Your task to perform on an android device: move an email to a new category in the gmail app Image 0: 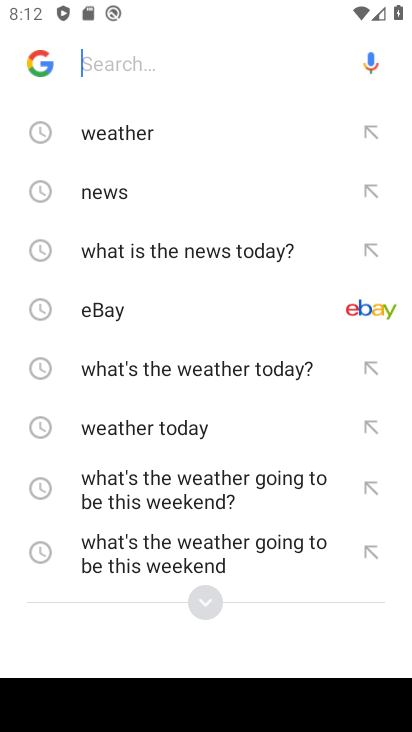
Step 0: press home button
Your task to perform on an android device: move an email to a new category in the gmail app Image 1: 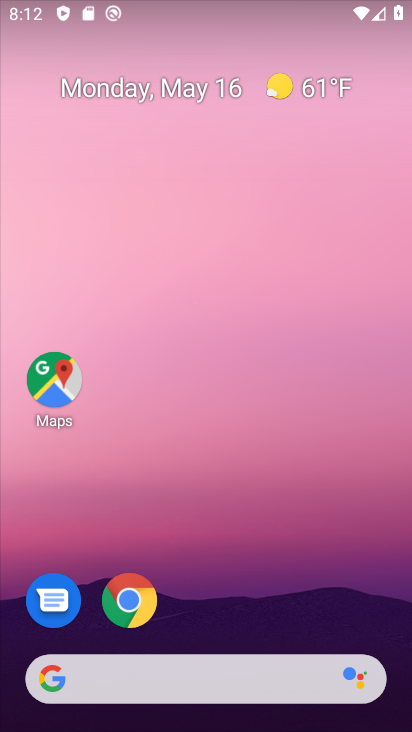
Step 1: drag from (239, 617) to (286, 43)
Your task to perform on an android device: move an email to a new category in the gmail app Image 2: 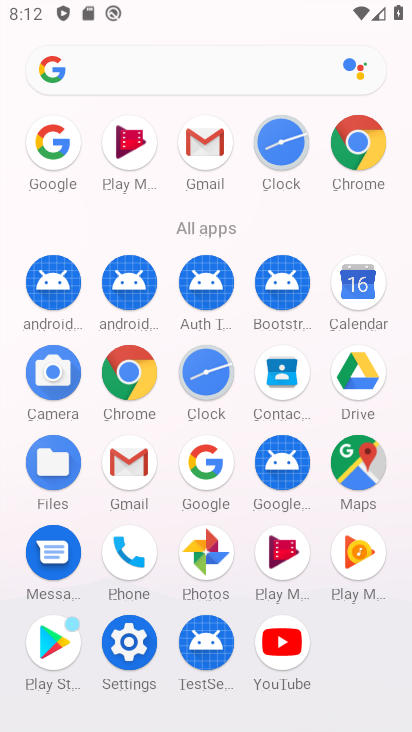
Step 2: click (121, 454)
Your task to perform on an android device: move an email to a new category in the gmail app Image 3: 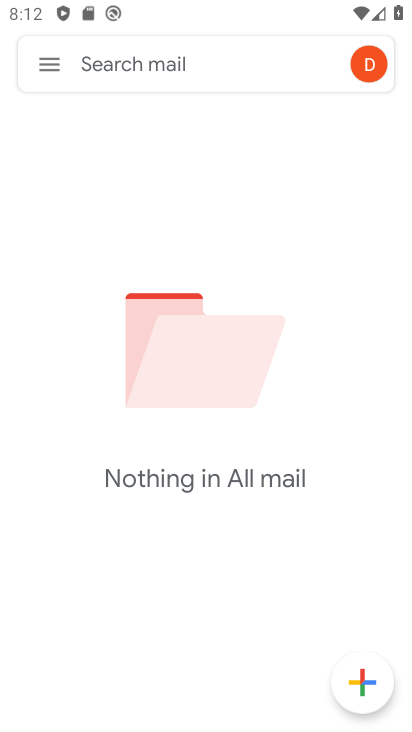
Step 3: click (41, 61)
Your task to perform on an android device: move an email to a new category in the gmail app Image 4: 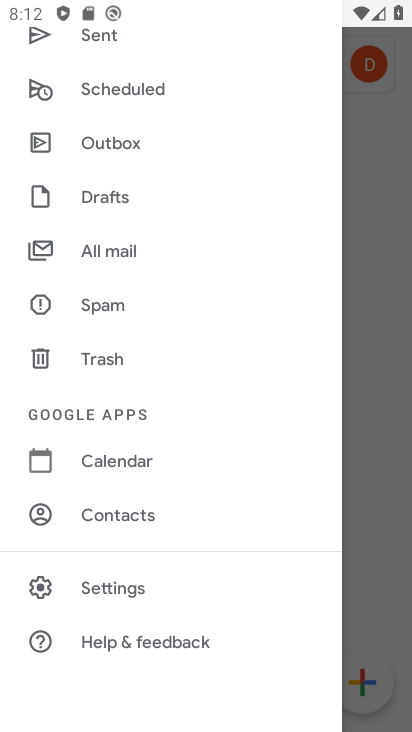
Step 4: click (139, 243)
Your task to perform on an android device: move an email to a new category in the gmail app Image 5: 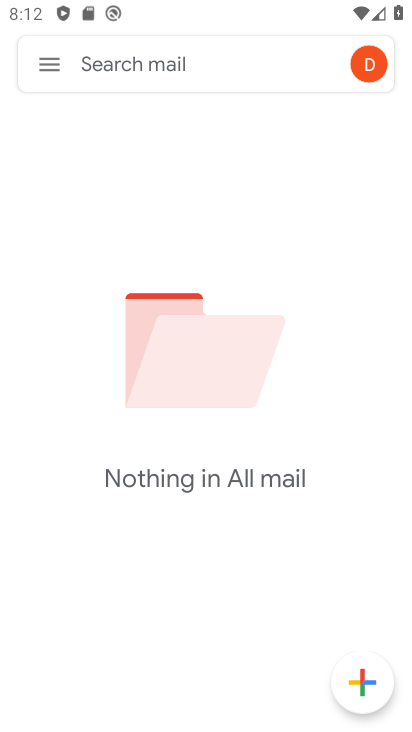
Step 5: task complete